Your task to perform on an android device: Go to Google maps Image 0: 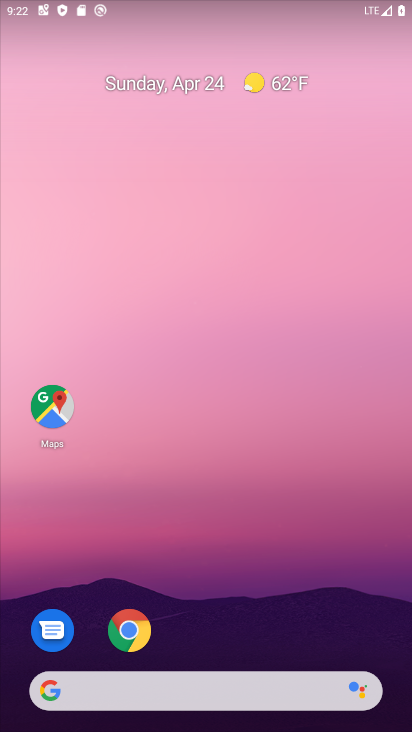
Step 0: drag from (218, 556) to (213, 0)
Your task to perform on an android device: Go to Google maps Image 1: 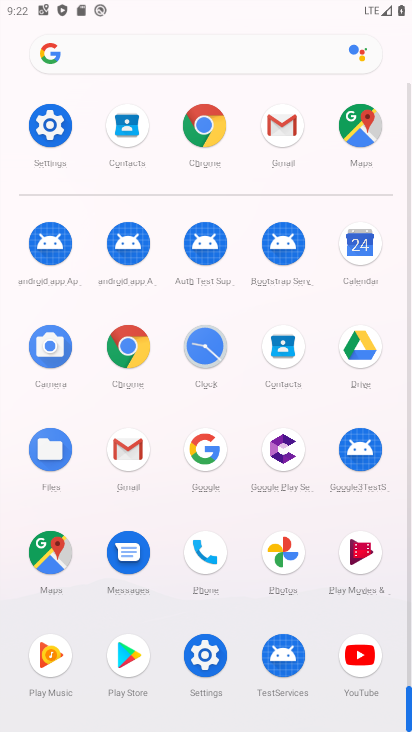
Step 1: drag from (3, 560) to (18, 246)
Your task to perform on an android device: Go to Google maps Image 2: 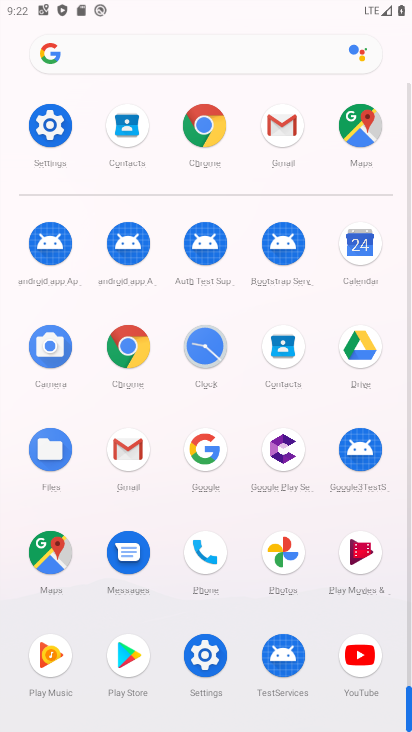
Step 2: click (49, 545)
Your task to perform on an android device: Go to Google maps Image 3: 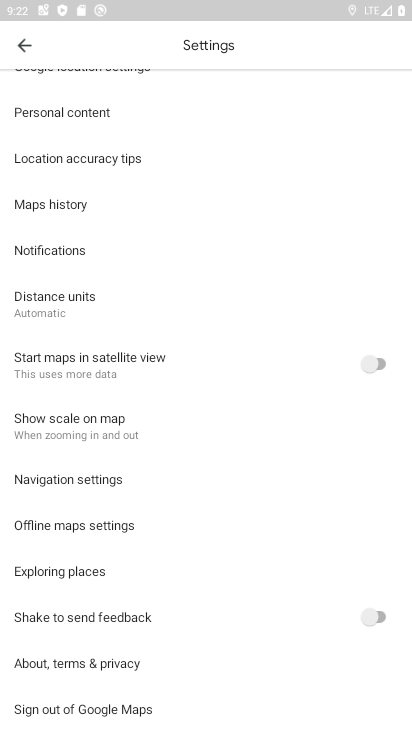
Step 3: click (19, 40)
Your task to perform on an android device: Go to Google maps Image 4: 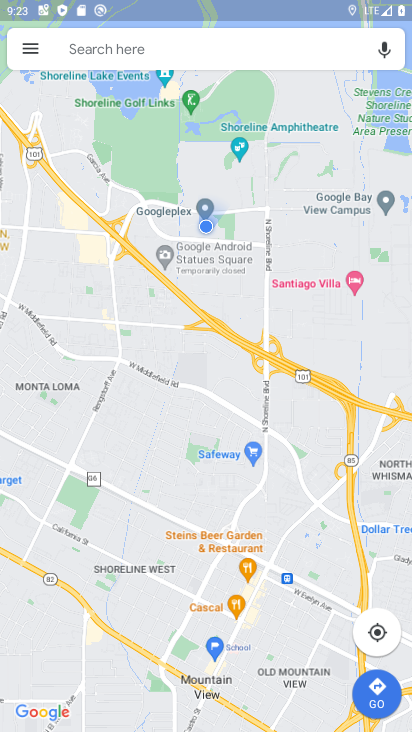
Step 4: task complete